Your task to perform on an android device: change the clock display to analog Image 0: 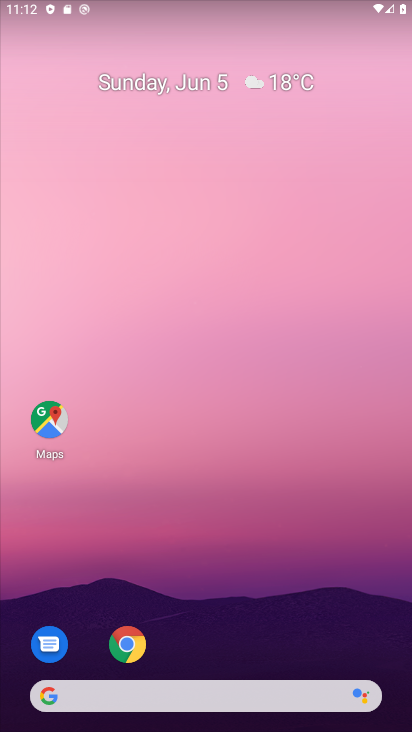
Step 0: drag from (238, 715) to (223, 178)
Your task to perform on an android device: change the clock display to analog Image 1: 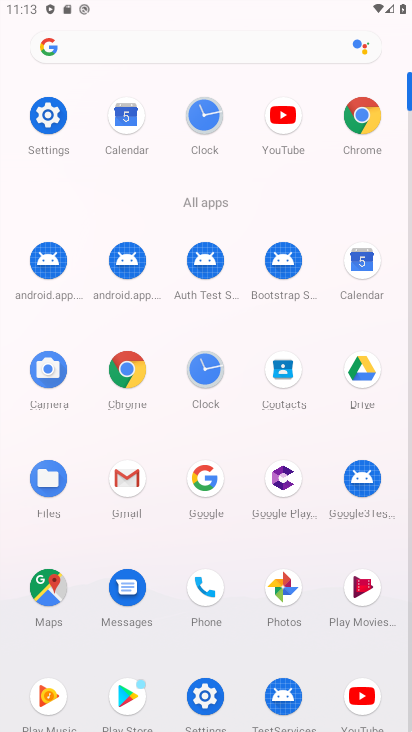
Step 1: click (208, 375)
Your task to perform on an android device: change the clock display to analog Image 2: 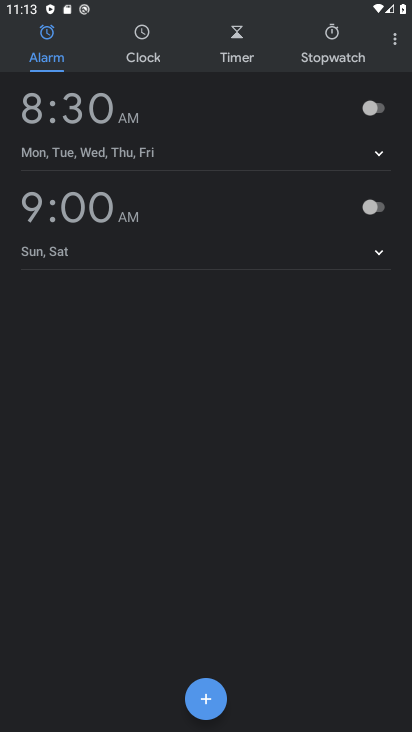
Step 2: click (384, 34)
Your task to perform on an android device: change the clock display to analog Image 3: 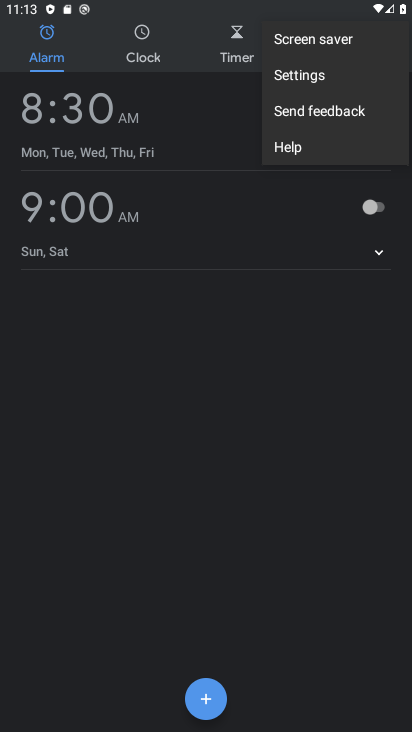
Step 3: click (298, 83)
Your task to perform on an android device: change the clock display to analog Image 4: 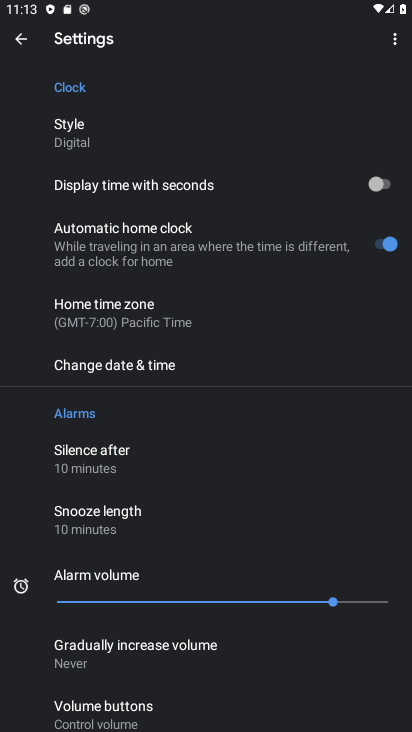
Step 4: click (169, 138)
Your task to perform on an android device: change the clock display to analog Image 5: 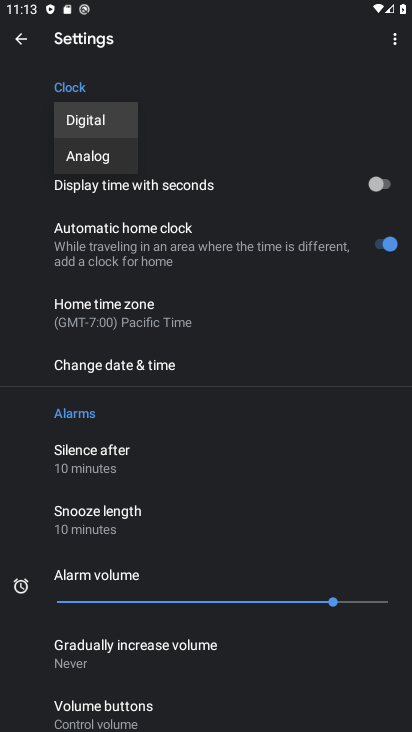
Step 5: click (100, 163)
Your task to perform on an android device: change the clock display to analog Image 6: 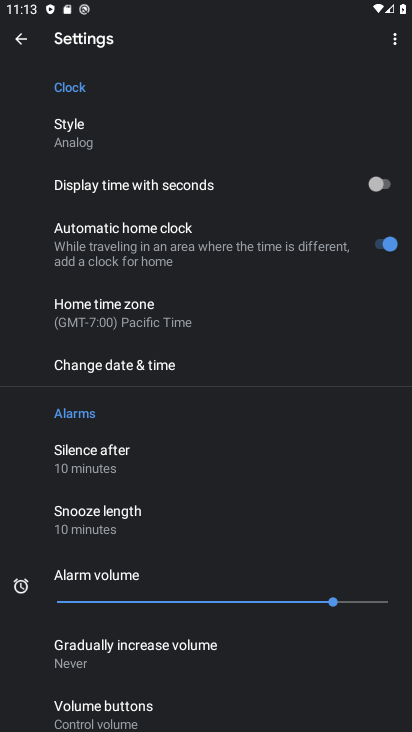
Step 6: task complete